Your task to perform on an android device: Open the calendar and show me this week's events? Image 0: 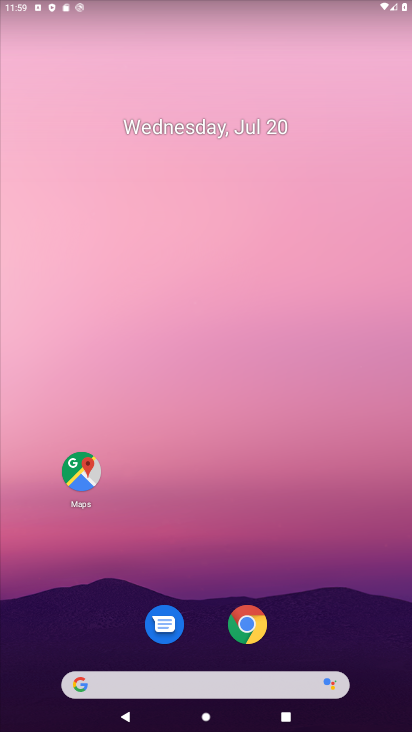
Step 0: drag from (203, 580) to (215, 114)
Your task to perform on an android device: Open the calendar and show me this week's events? Image 1: 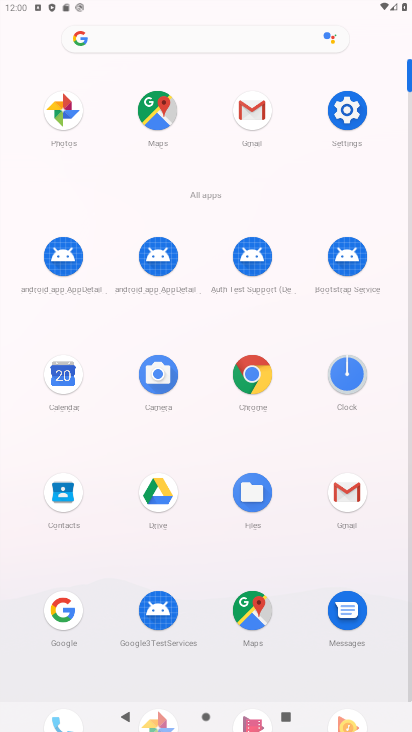
Step 1: click (76, 383)
Your task to perform on an android device: Open the calendar and show me this week's events? Image 2: 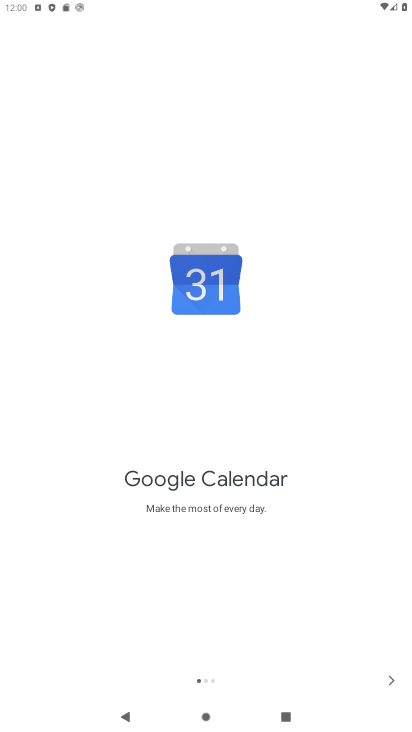
Step 2: click (388, 677)
Your task to perform on an android device: Open the calendar and show me this week's events? Image 3: 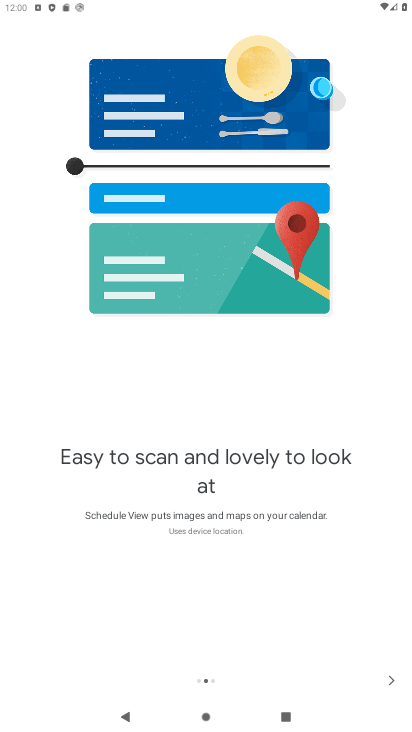
Step 3: click (388, 677)
Your task to perform on an android device: Open the calendar and show me this week's events? Image 4: 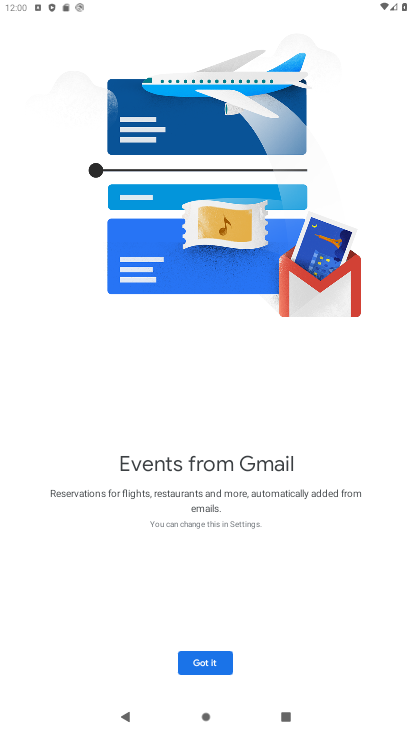
Step 4: click (228, 655)
Your task to perform on an android device: Open the calendar and show me this week's events? Image 5: 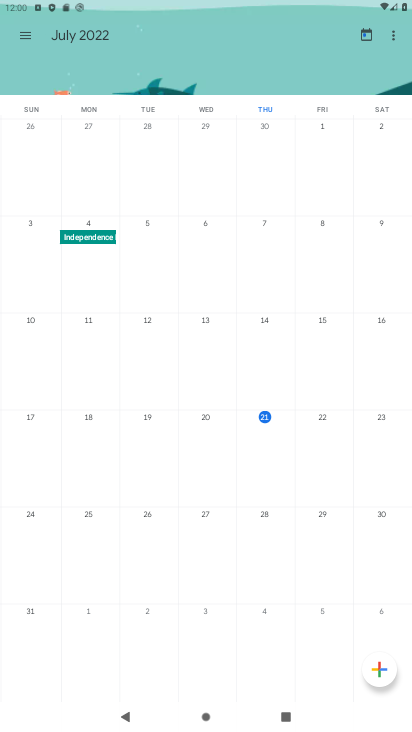
Step 5: click (141, 431)
Your task to perform on an android device: Open the calendar and show me this week's events? Image 6: 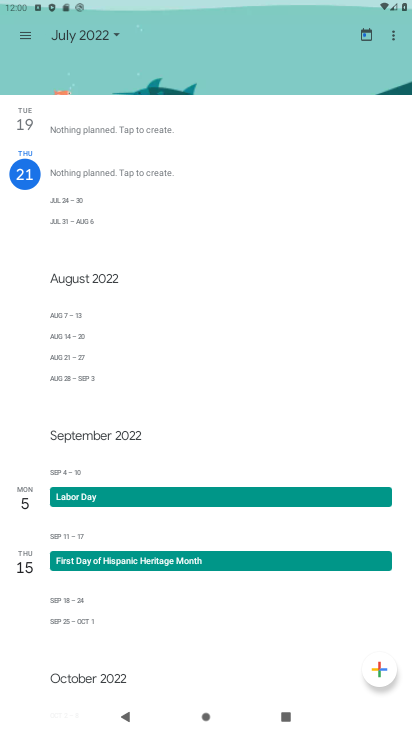
Step 6: click (28, 27)
Your task to perform on an android device: Open the calendar and show me this week's events? Image 7: 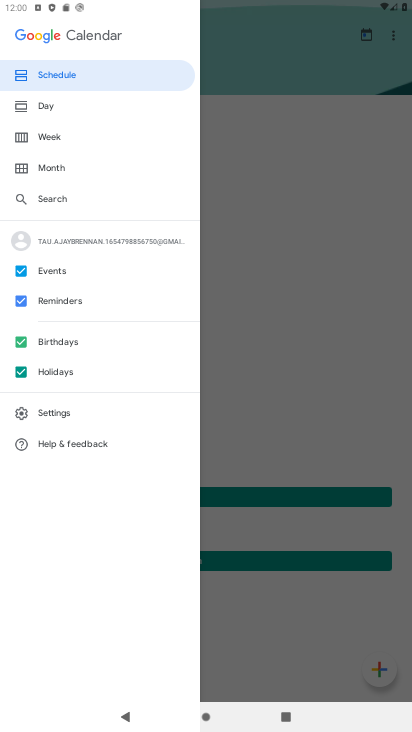
Step 7: click (345, 317)
Your task to perform on an android device: Open the calendar and show me this week's events? Image 8: 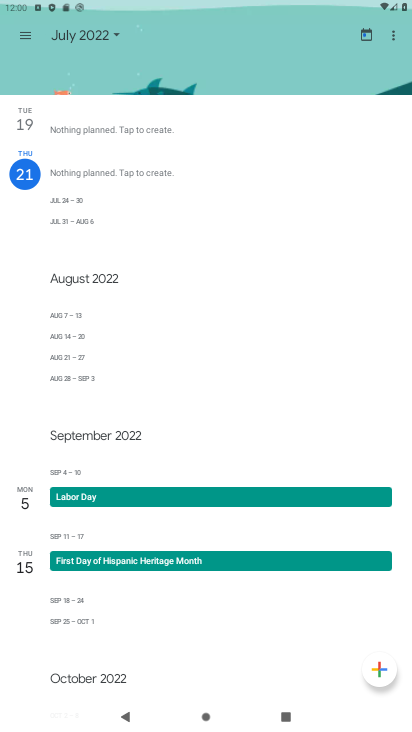
Step 8: task complete